Your task to perform on an android device: Open maps Image 0: 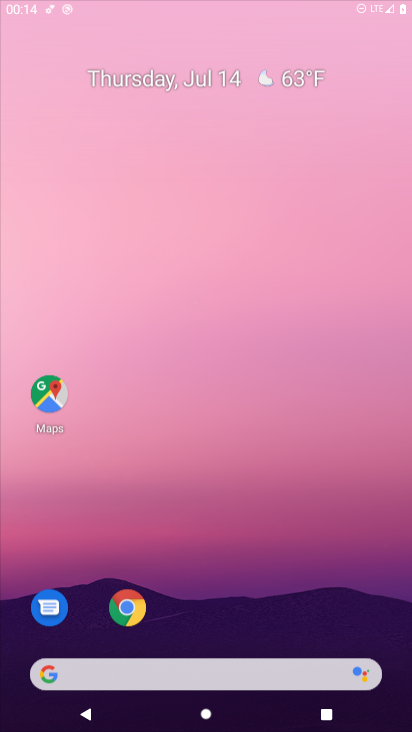
Step 0: press home button
Your task to perform on an android device: Open maps Image 1: 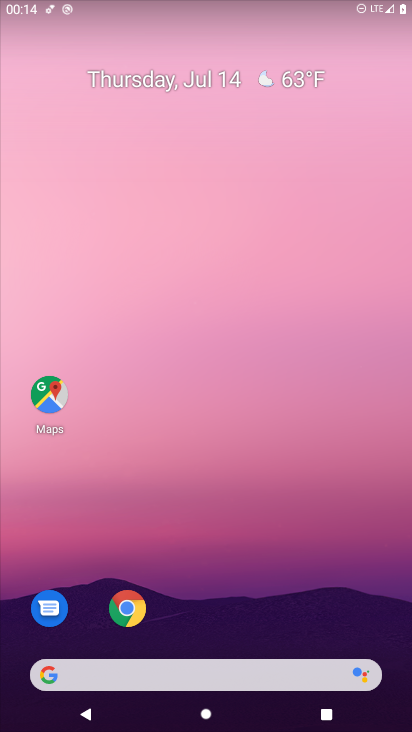
Step 1: drag from (237, 648) to (164, 7)
Your task to perform on an android device: Open maps Image 2: 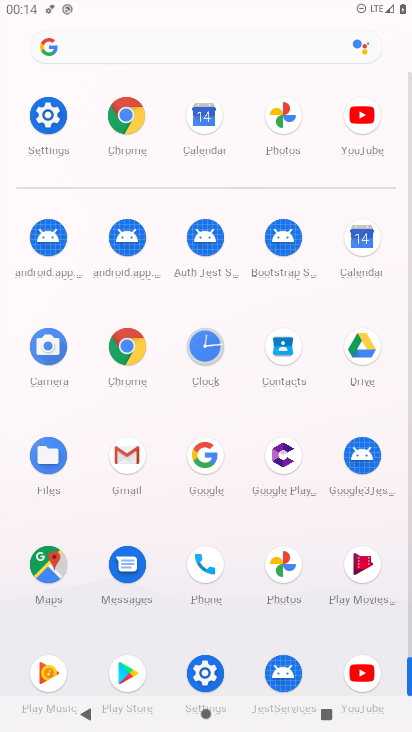
Step 2: click (44, 574)
Your task to perform on an android device: Open maps Image 3: 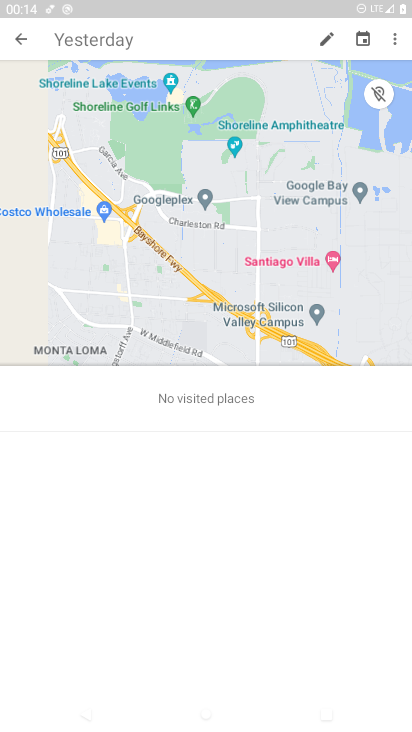
Step 3: task complete